Your task to perform on an android device: Add "bose soundlink" to the cart on target, then select checkout. Image 0: 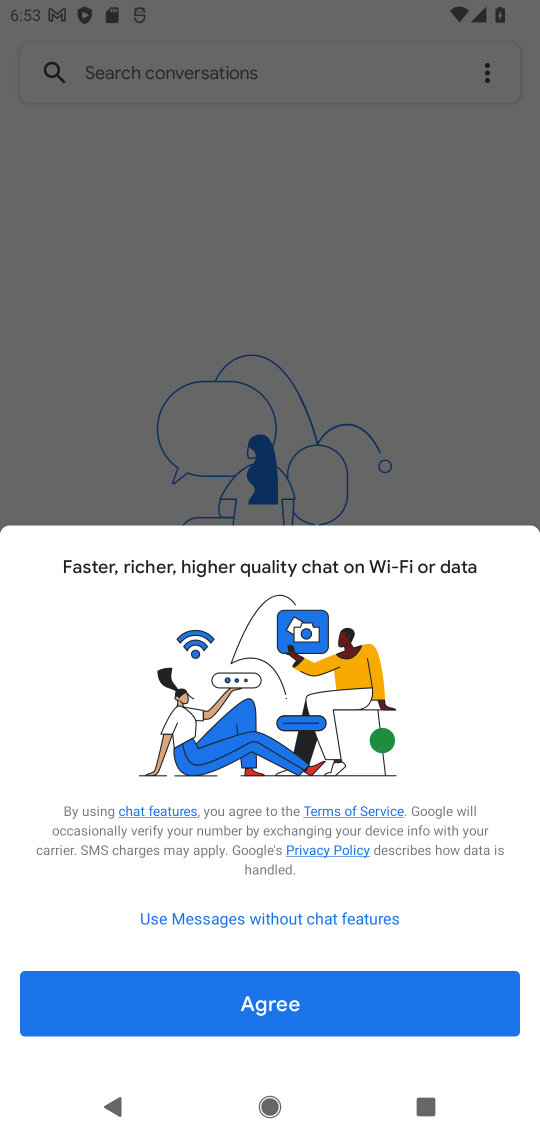
Step 0: press home button
Your task to perform on an android device: Add "bose soundlink" to the cart on target, then select checkout. Image 1: 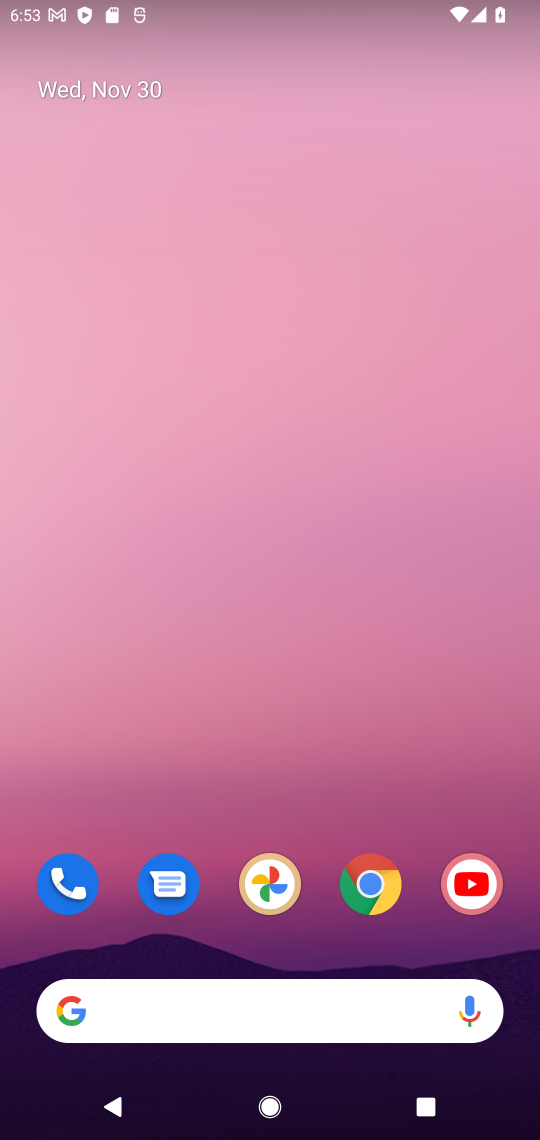
Step 1: click (379, 884)
Your task to perform on an android device: Add "bose soundlink" to the cart on target, then select checkout. Image 2: 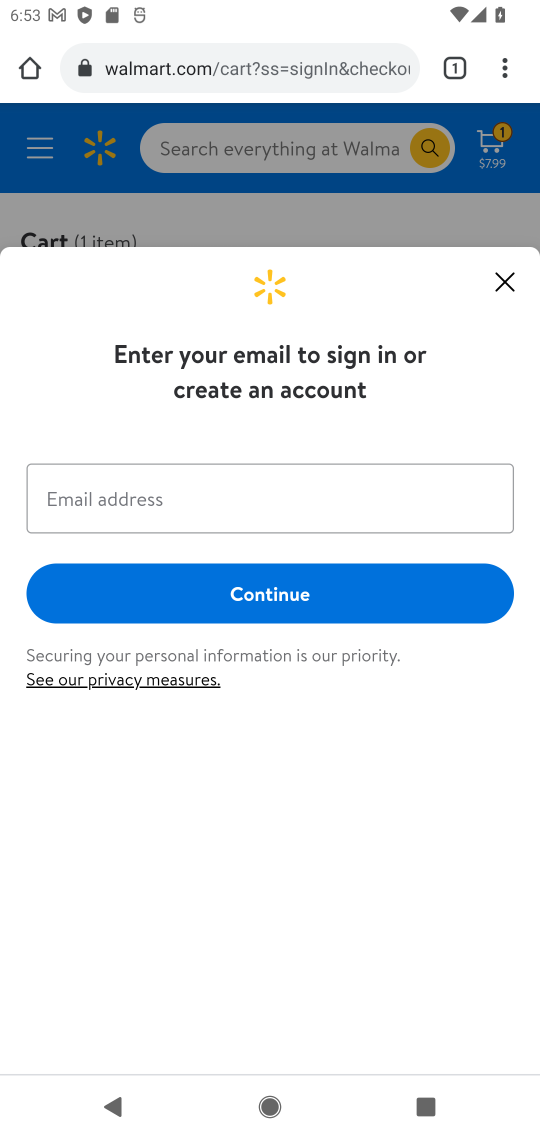
Step 2: click (216, 69)
Your task to perform on an android device: Add "bose soundlink" to the cart on target, then select checkout. Image 3: 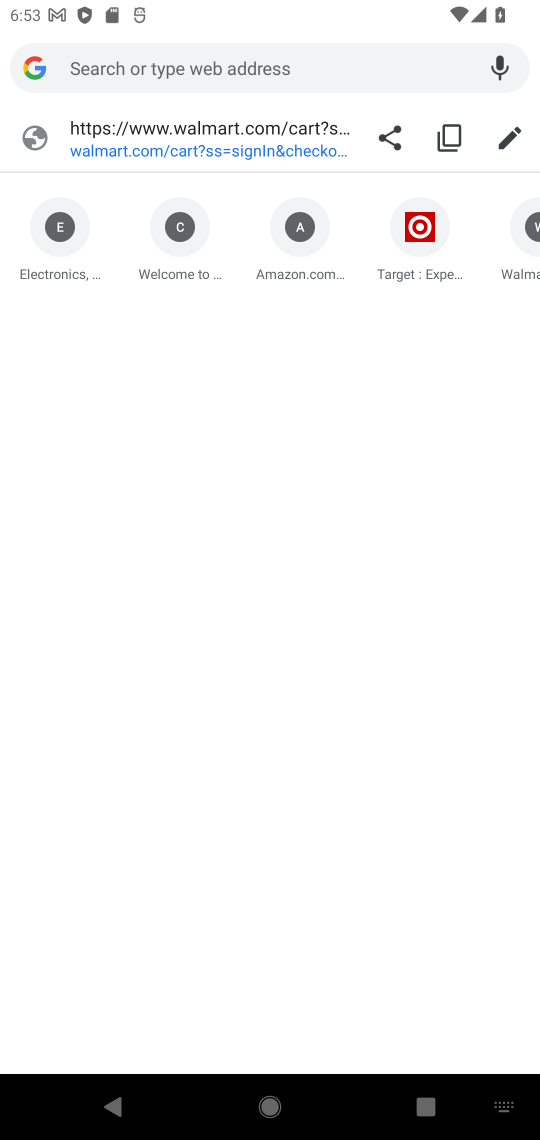
Step 3: click (422, 272)
Your task to perform on an android device: Add "bose soundlink" to the cart on target, then select checkout. Image 4: 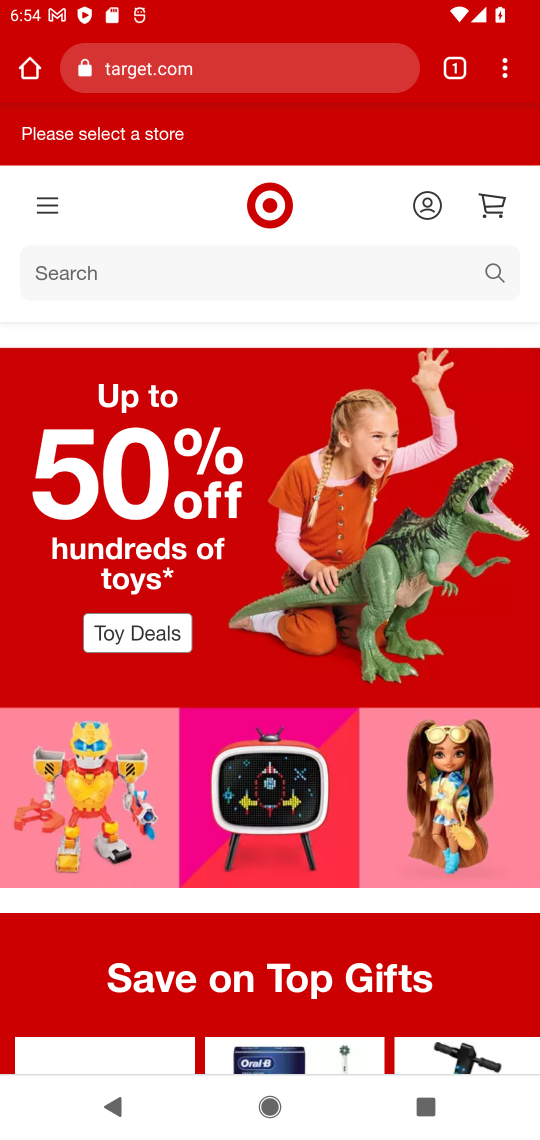
Step 4: click (77, 281)
Your task to perform on an android device: Add "bose soundlink" to the cart on target, then select checkout. Image 5: 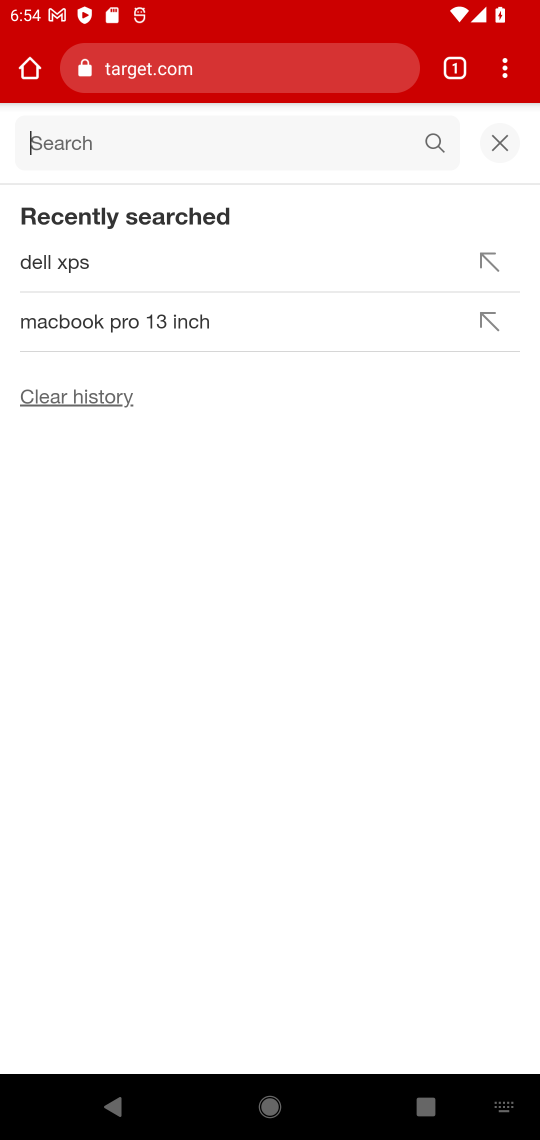
Step 5: type "bose soundlink"
Your task to perform on an android device: Add "bose soundlink" to the cart on target, then select checkout. Image 6: 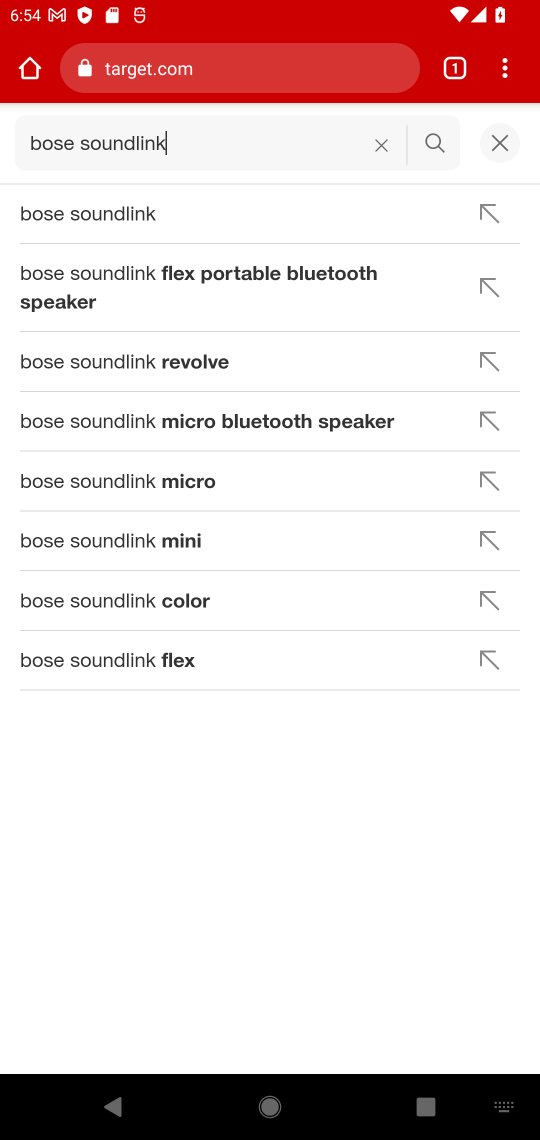
Step 6: click (59, 211)
Your task to perform on an android device: Add "bose soundlink" to the cart on target, then select checkout. Image 7: 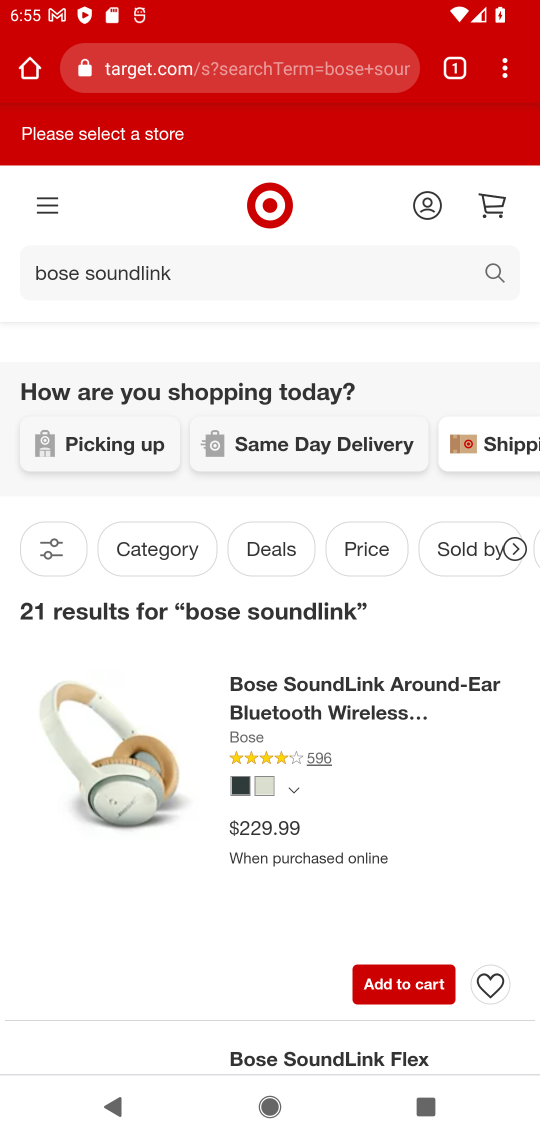
Step 7: click (399, 984)
Your task to perform on an android device: Add "bose soundlink" to the cart on target, then select checkout. Image 8: 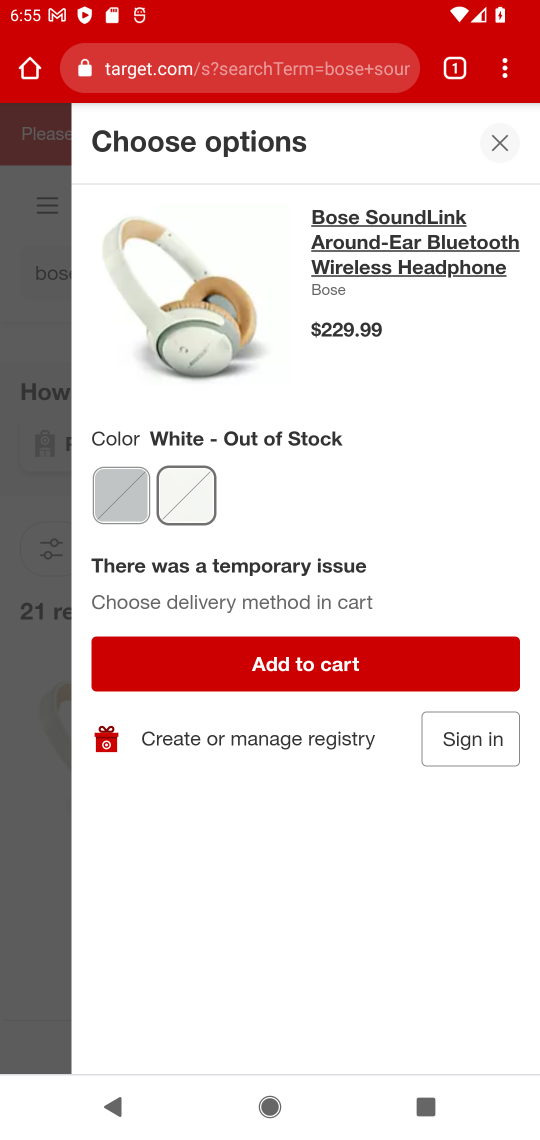
Step 8: click (307, 666)
Your task to perform on an android device: Add "bose soundlink" to the cart on target, then select checkout. Image 9: 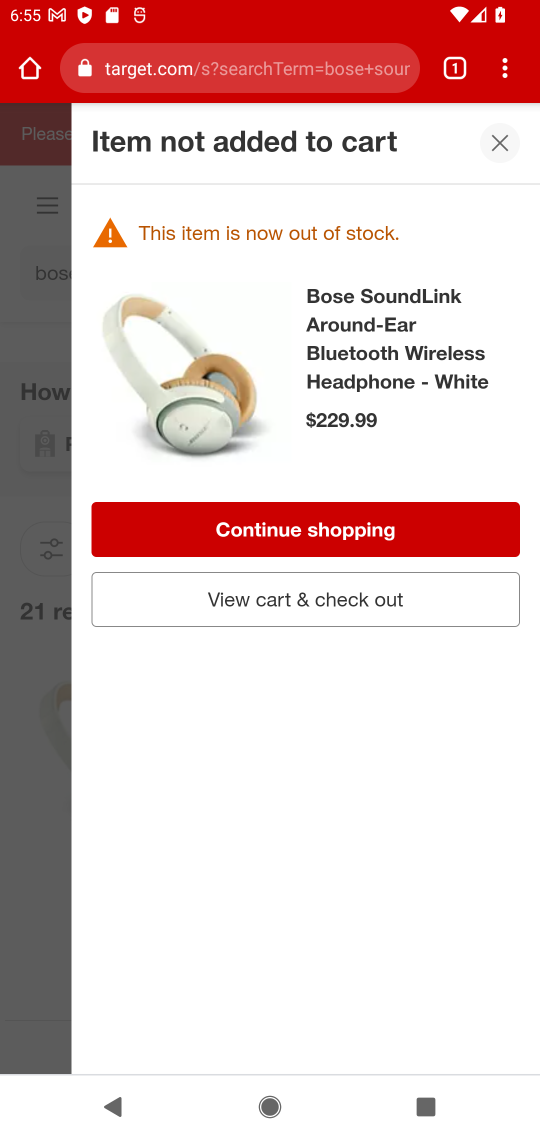
Step 9: click (294, 617)
Your task to perform on an android device: Add "bose soundlink" to the cart on target, then select checkout. Image 10: 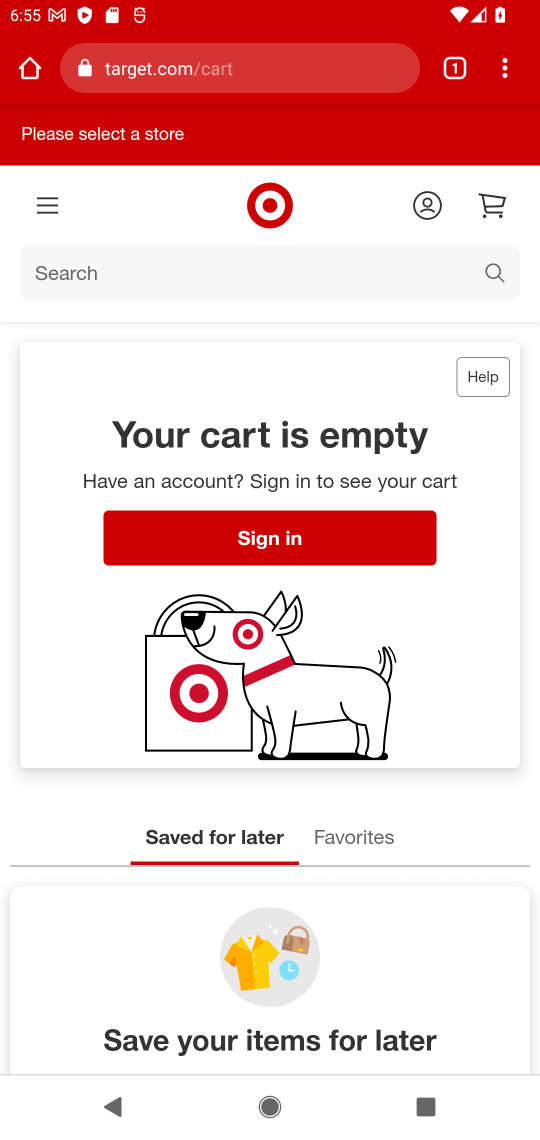
Step 10: task complete